Your task to perform on an android device: clear all cookies in the chrome app Image 0: 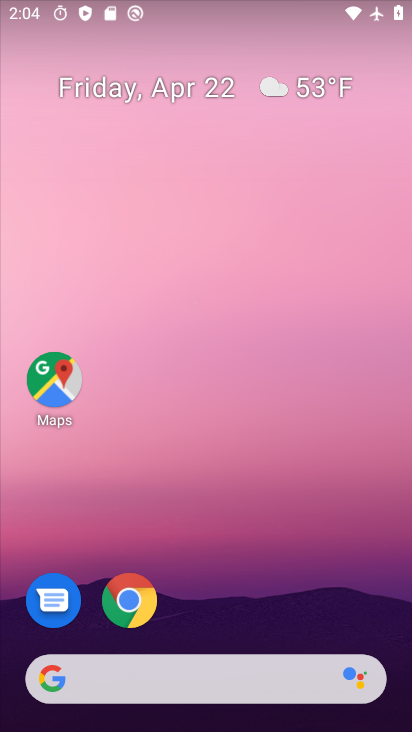
Step 0: click (132, 604)
Your task to perform on an android device: clear all cookies in the chrome app Image 1: 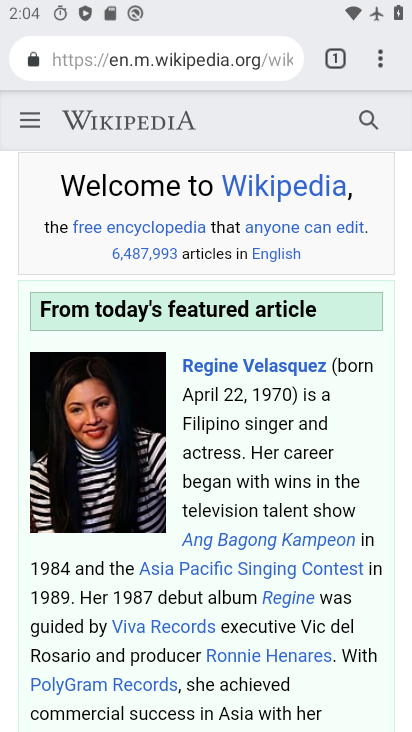
Step 1: drag from (382, 58) to (195, 613)
Your task to perform on an android device: clear all cookies in the chrome app Image 2: 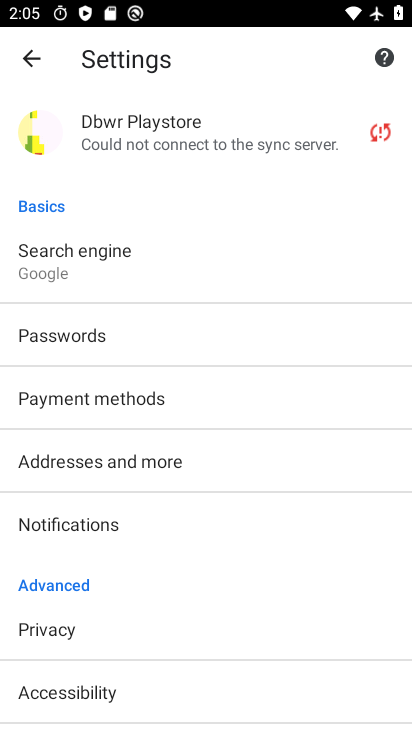
Step 2: drag from (167, 689) to (165, 472)
Your task to perform on an android device: clear all cookies in the chrome app Image 3: 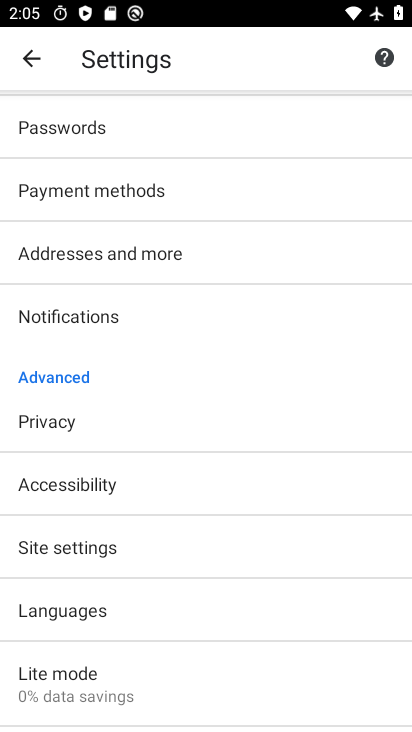
Step 3: drag from (164, 666) to (159, 403)
Your task to perform on an android device: clear all cookies in the chrome app Image 4: 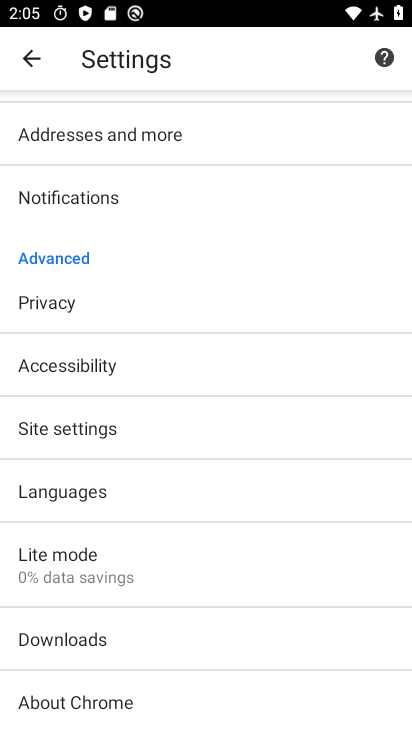
Step 4: click (47, 300)
Your task to perform on an android device: clear all cookies in the chrome app Image 5: 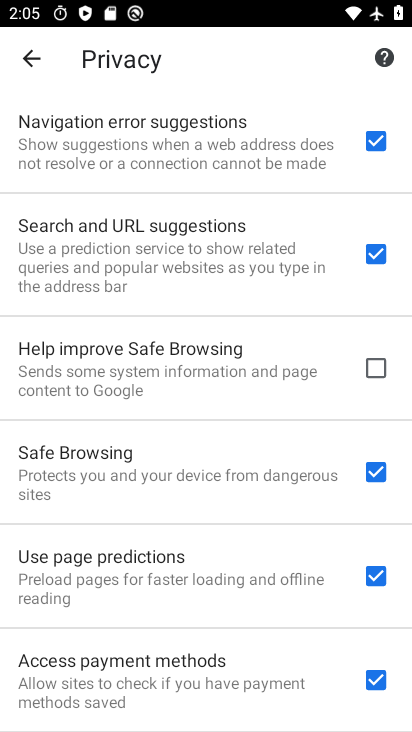
Step 5: drag from (176, 679) to (178, 326)
Your task to perform on an android device: clear all cookies in the chrome app Image 6: 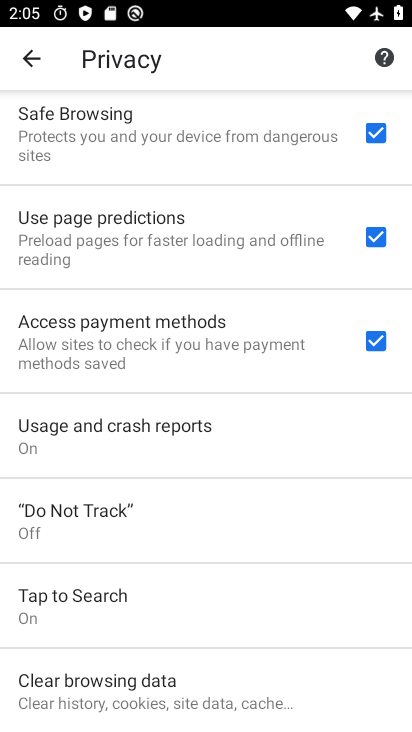
Step 6: drag from (187, 679) to (194, 411)
Your task to perform on an android device: clear all cookies in the chrome app Image 7: 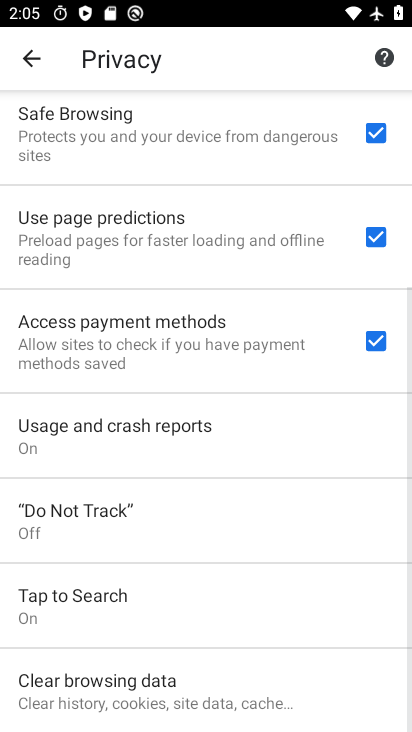
Step 7: click (131, 680)
Your task to perform on an android device: clear all cookies in the chrome app Image 8: 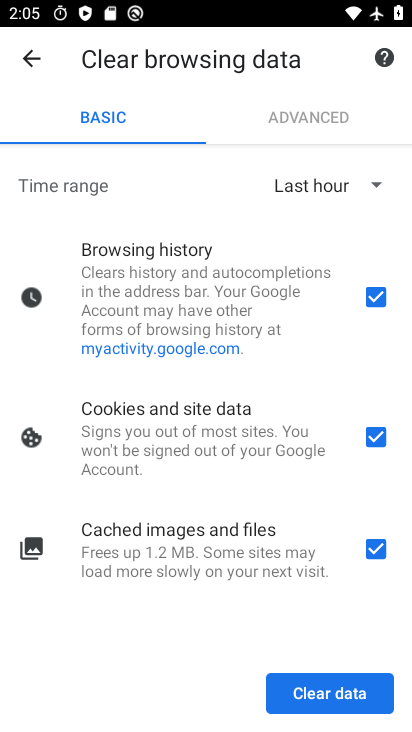
Step 8: drag from (195, 612) to (198, 323)
Your task to perform on an android device: clear all cookies in the chrome app Image 9: 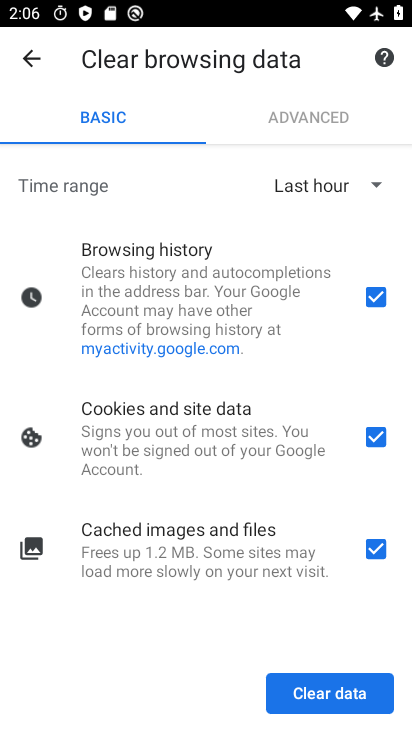
Step 9: click (373, 292)
Your task to perform on an android device: clear all cookies in the chrome app Image 10: 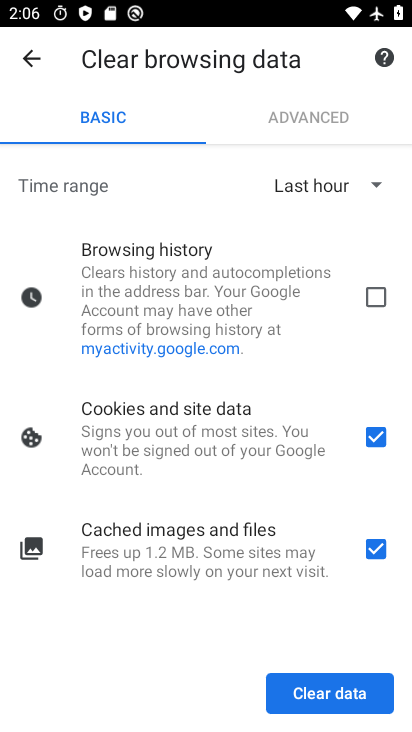
Step 10: click (375, 546)
Your task to perform on an android device: clear all cookies in the chrome app Image 11: 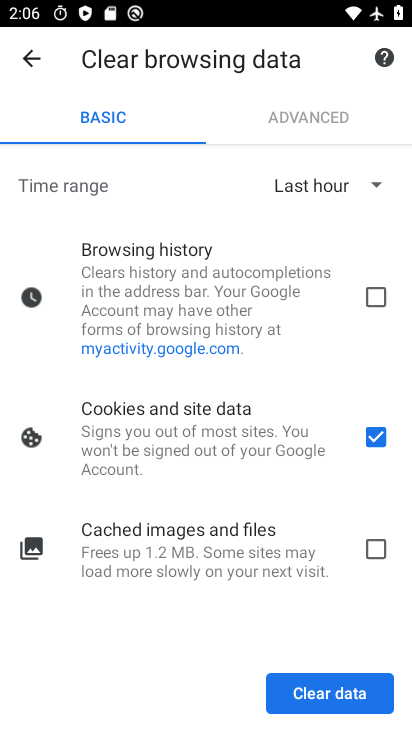
Step 11: click (337, 691)
Your task to perform on an android device: clear all cookies in the chrome app Image 12: 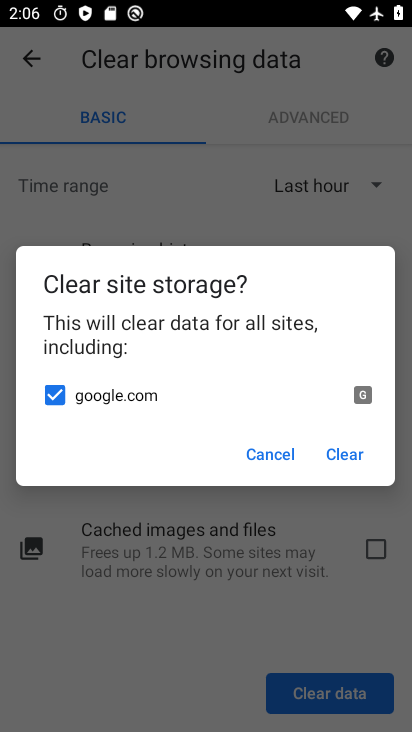
Step 12: click (346, 450)
Your task to perform on an android device: clear all cookies in the chrome app Image 13: 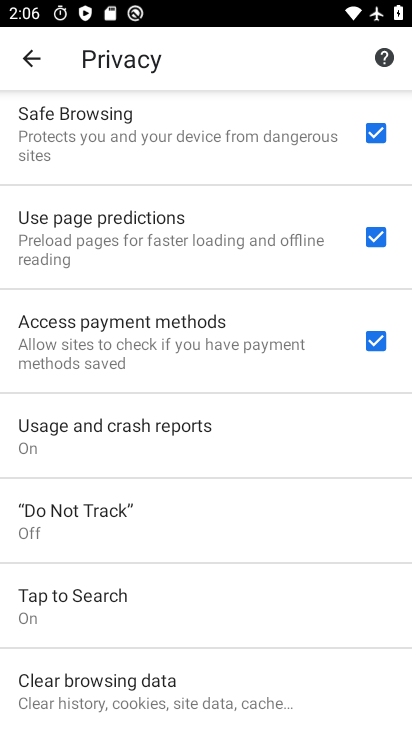
Step 13: task complete